Your task to perform on an android device: Open Youtube and go to "Your channel" Image 0: 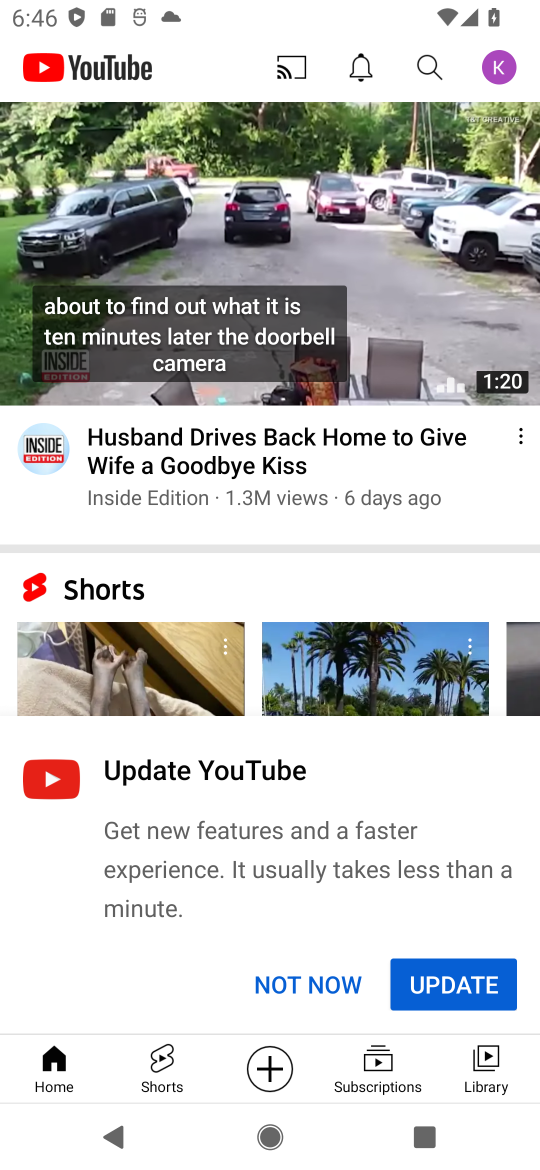
Step 0: press home button
Your task to perform on an android device: Open Youtube and go to "Your channel" Image 1: 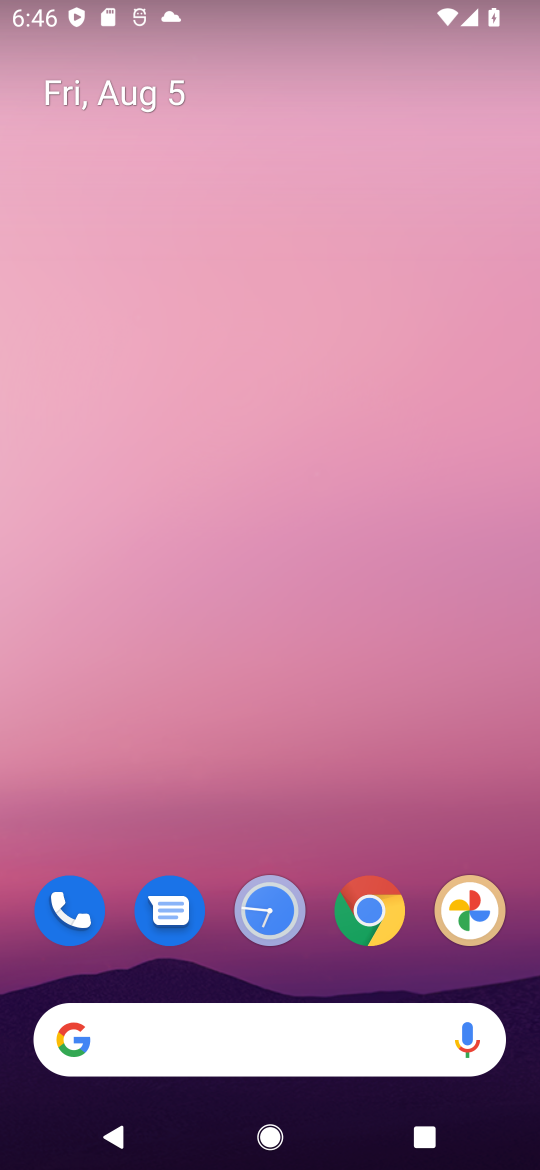
Step 1: drag from (349, 1046) to (336, 16)
Your task to perform on an android device: Open Youtube and go to "Your channel" Image 2: 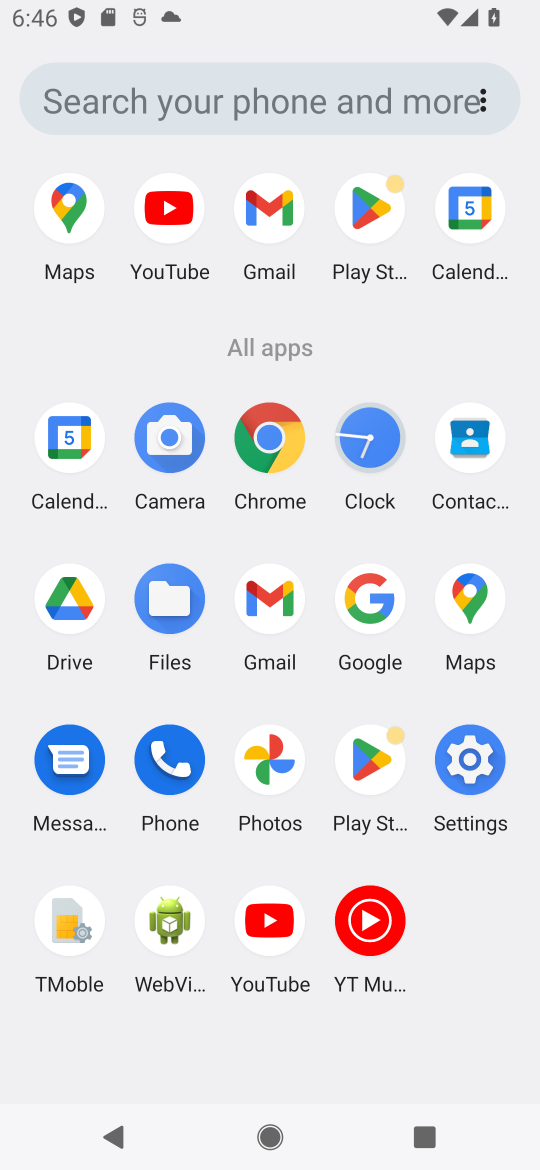
Step 2: click (255, 912)
Your task to perform on an android device: Open Youtube and go to "Your channel" Image 3: 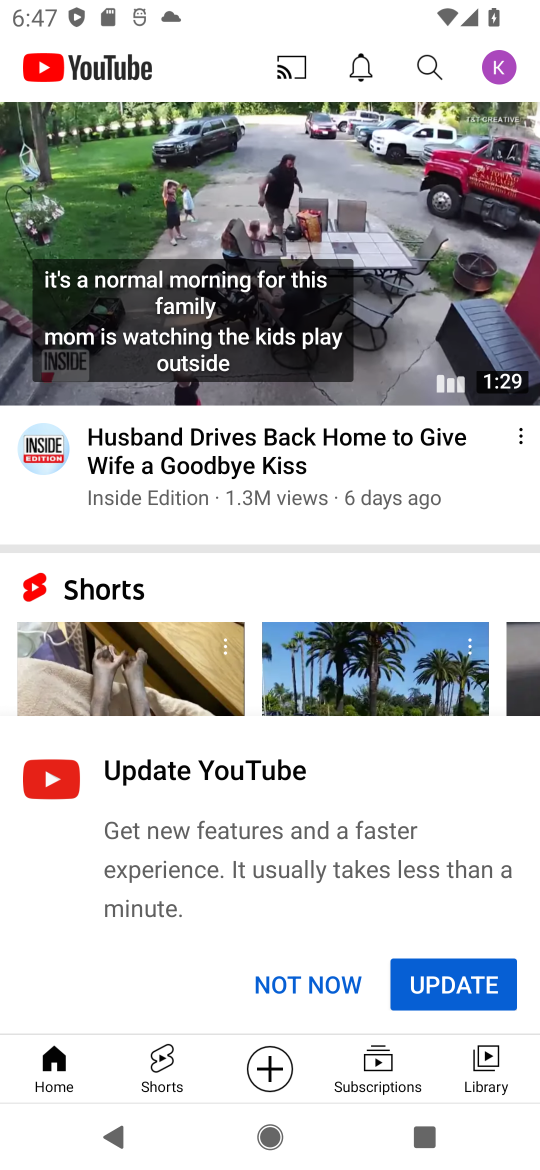
Step 3: click (507, 53)
Your task to perform on an android device: Open Youtube and go to "Your channel" Image 4: 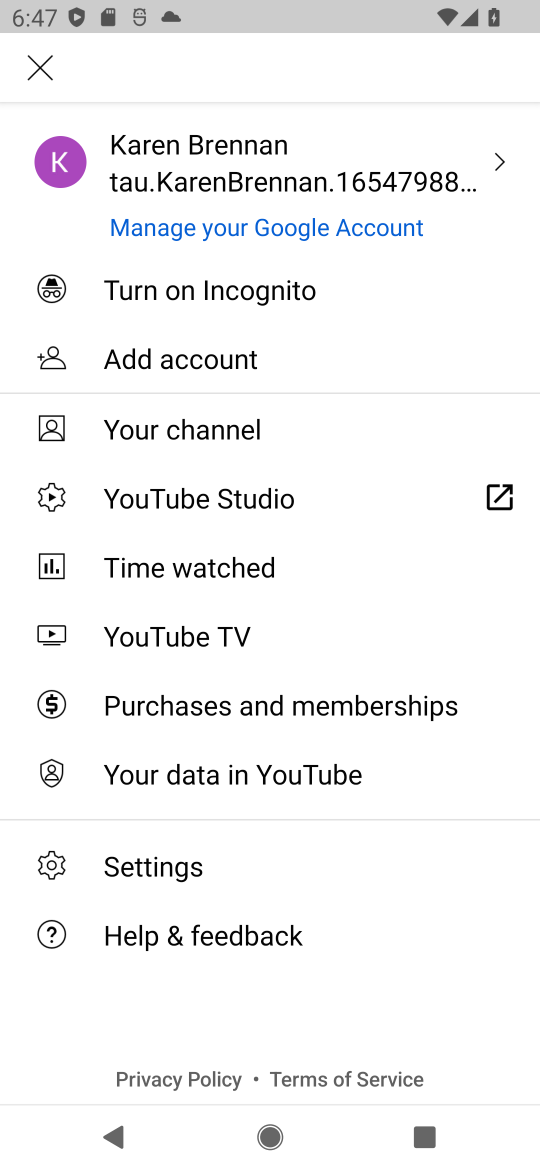
Step 4: click (233, 411)
Your task to perform on an android device: Open Youtube and go to "Your channel" Image 5: 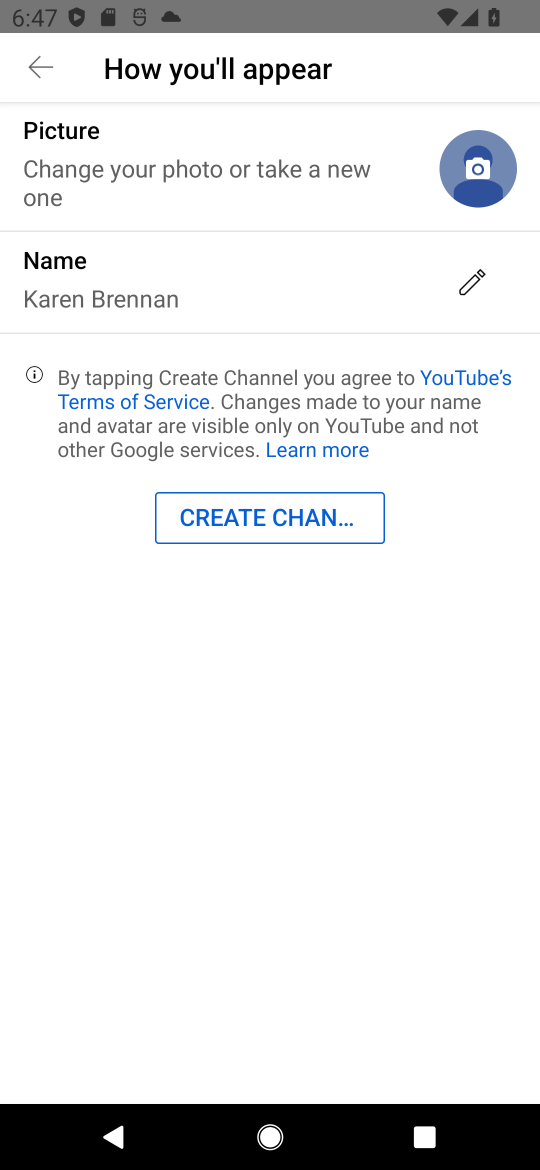
Step 5: task complete